Your task to perform on an android device: turn on data saver in the chrome app Image 0: 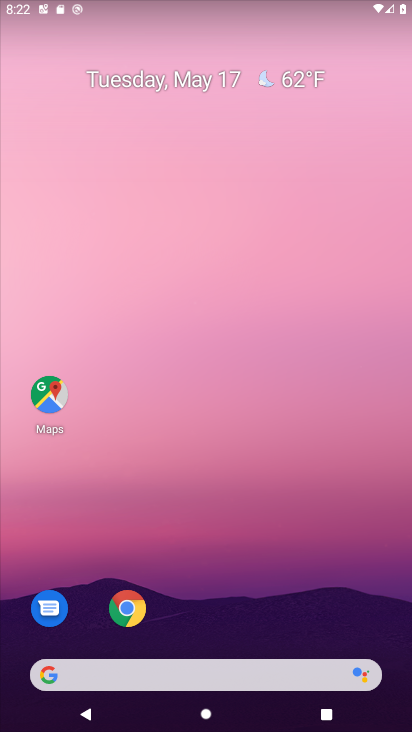
Step 0: drag from (362, 611) to (364, 178)
Your task to perform on an android device: turn on data saver in the chrome app Image 1: 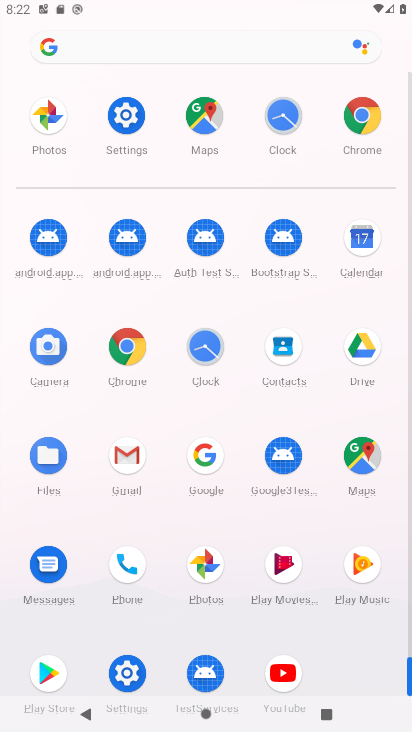
Step 1: click (127, 350)
Your task to perform on an android device: turn on data saver in the chrome app Image 2: 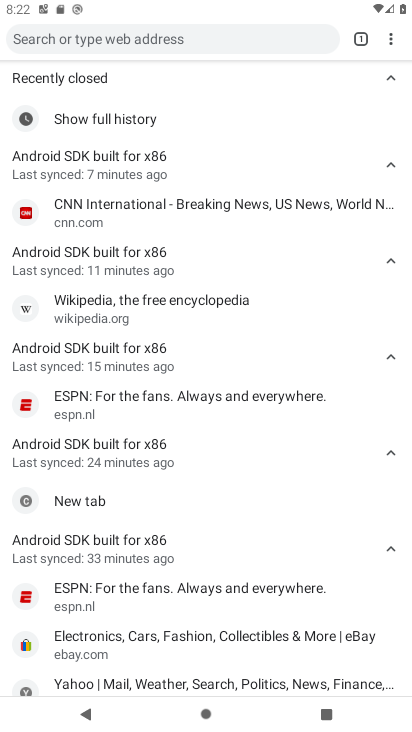
Step 2: click (394, 42)
Your task to perform on an android device: turn on data saver in the chrome app Image 3: 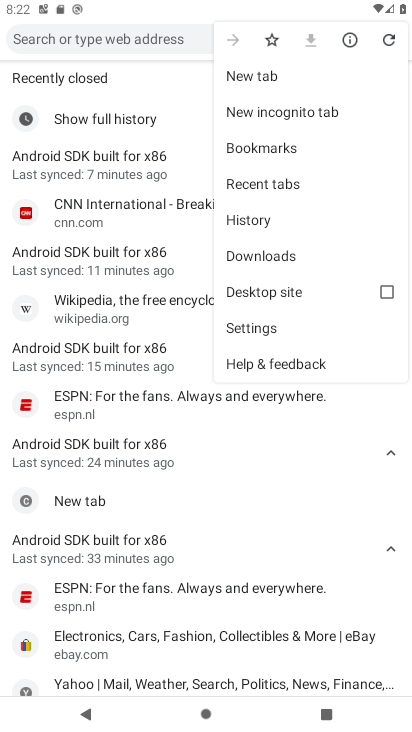
Step 3: click (323, 331)
Your task to perform on an android device: turn on data saver in the chrome app Image 4: 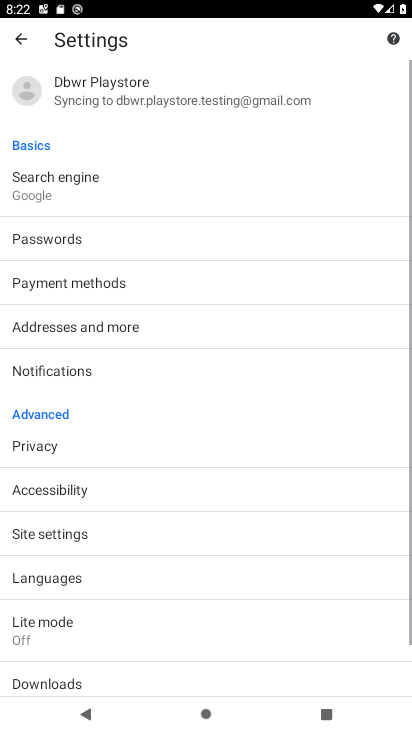
Step 4: drag from (294, 485) to (298, 294)
Your task to perform on an android device: turn on data saver in the chrome app Image 5: 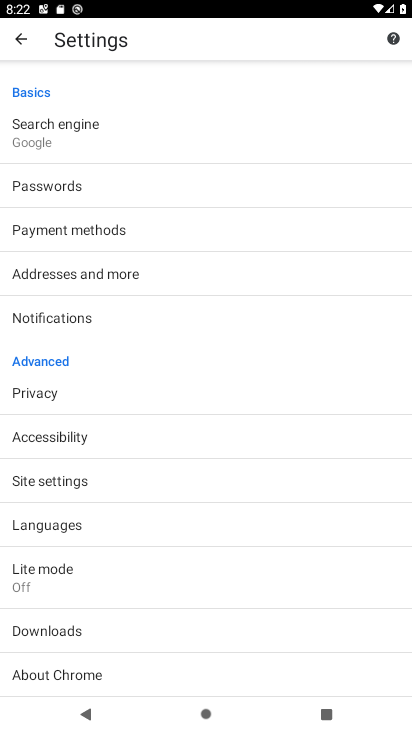
Step 5: drag from (299, 504) to (315, 342)
Your task to perform on an android device: turn on data saver in the chrome app Image 6: 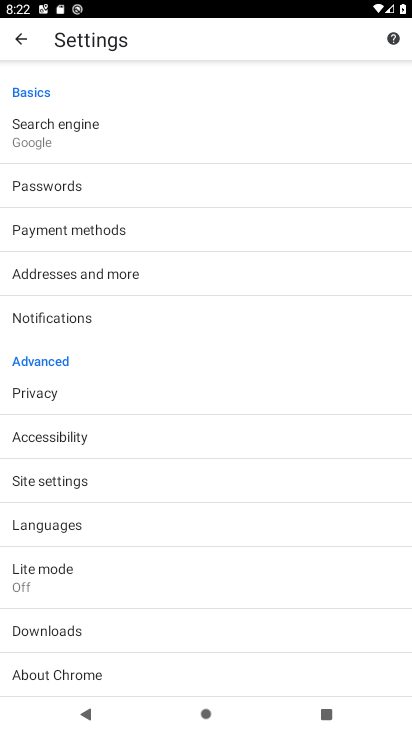
Step 6: click (288, 579)
Your task to perform on an android device: turn on data saver in the chrome app Image 7: 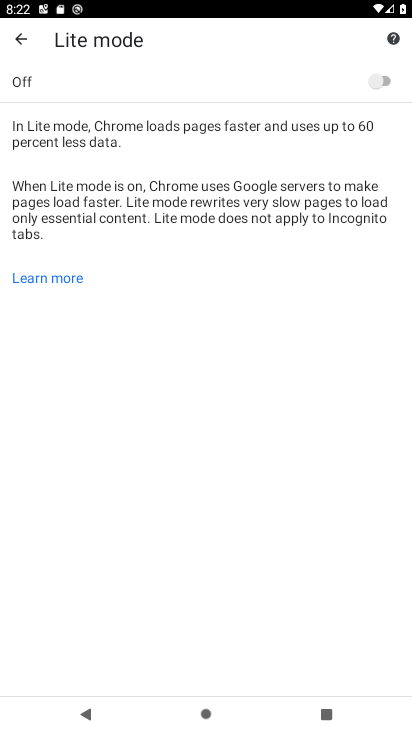
Step 7: click (383, 79)
Your task to perform on an android device: turn on data saver in the chrome app Image 8: 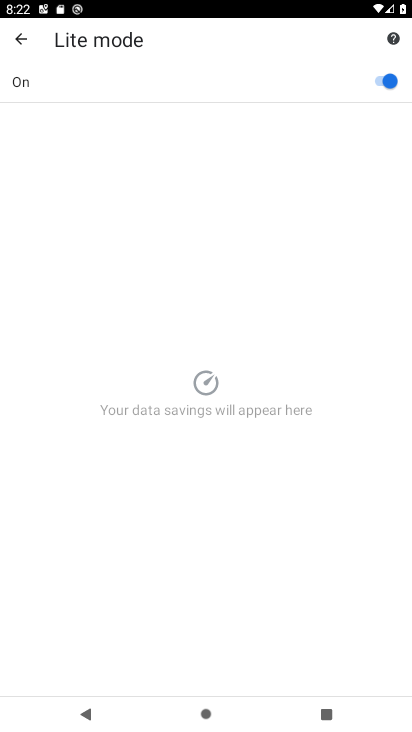
Step 8: task complete